Your task to perform on an android device: turn smart compose on in the gmail app Image 0: 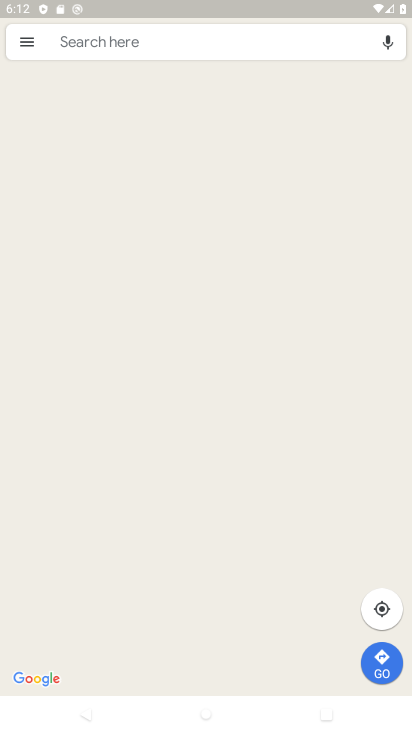
Step 0: press back button
Your task to perform on an android device: turn smart compose on in the gmail app Image 1: 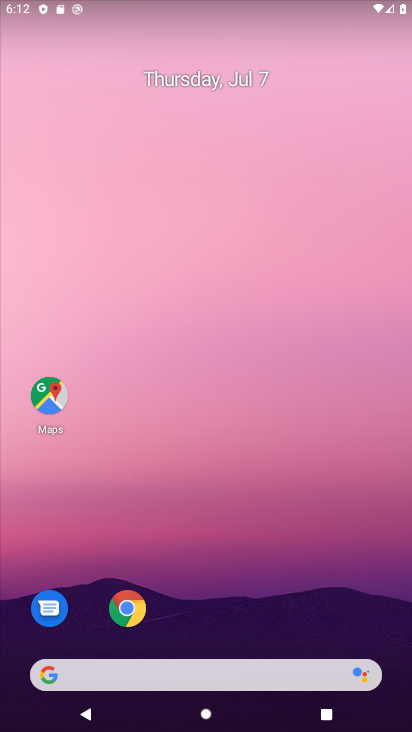
Step 1: click (181, 676)
Your task to perform on an android device: turn smart compose on in the gmail app Image 2: 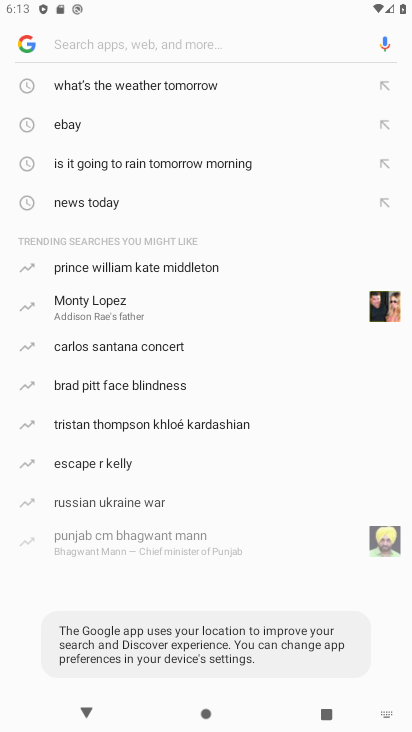
Step 2: click (156, 51)
Your task to perform on an android device: turn smart compose on in the gmail app Image 3: 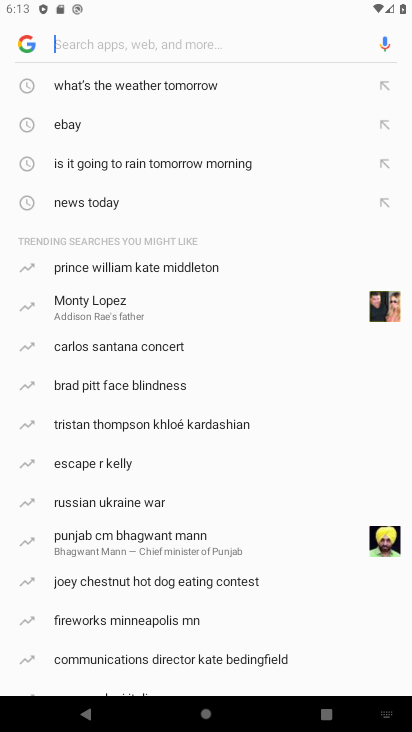
Step 3: press back button
Your task to perform on an android device: turn smart compose on in the gmail app Image 4: 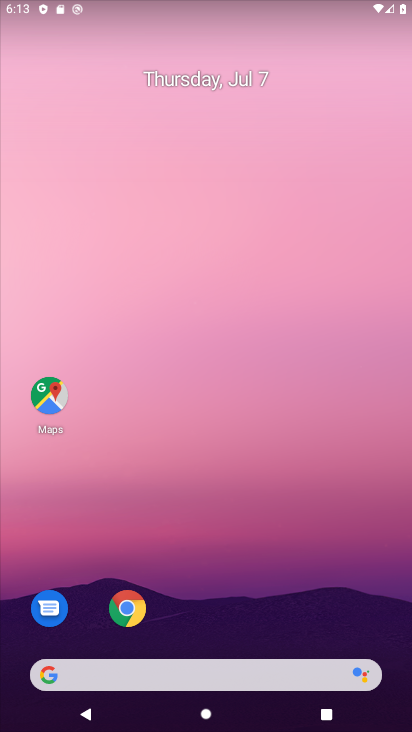
Step 4: drag from (205, 615) to (215, 4)
Your task to perform on an android device: turn smart compose on in the gmail app Image 5: 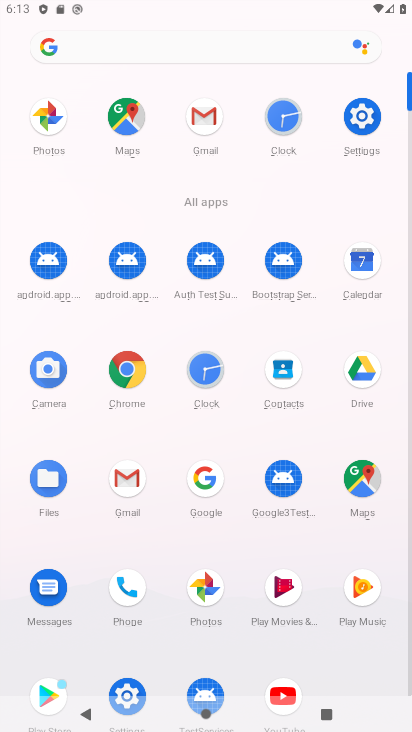
Step 5: click (196, 153)
Your task to perform on an android device: turn smart compose on in the gmail app Image 6: 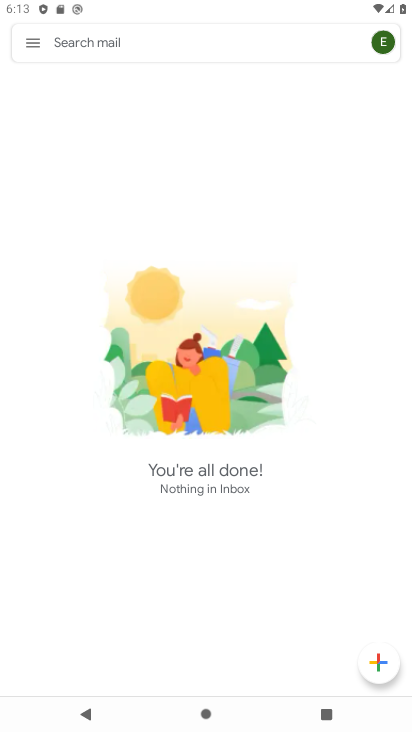
Step 6: click (34, 40)
Your task to perform on an android device: turn smart compose on in the gmail app Image 7: 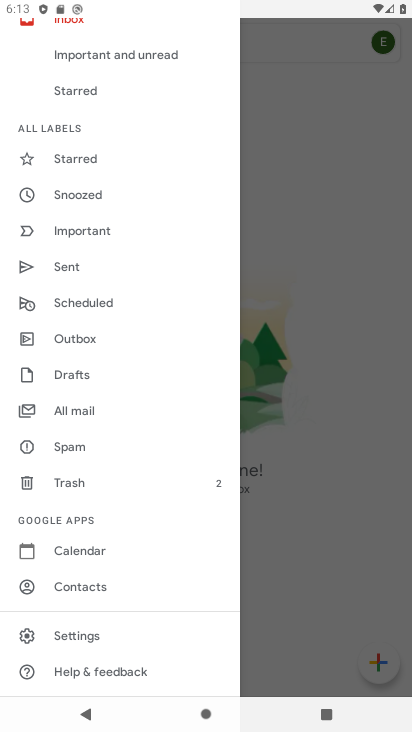
Step 7: click (69, 632)
Your task to perform on an android device: turn smart compose on in the gmail app Image 8: 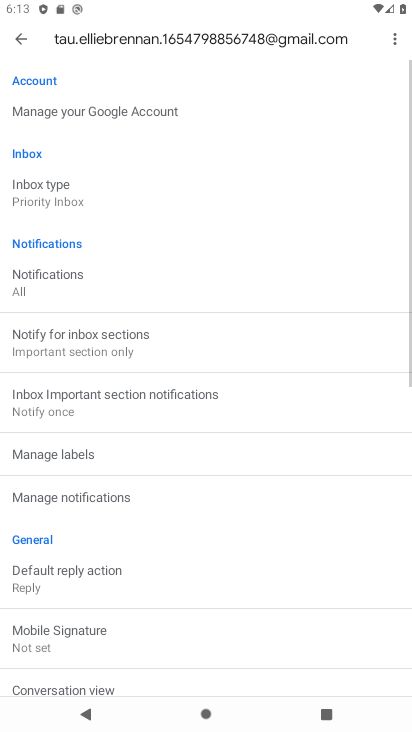
Step 8: task complete